Your task to perform on an android device: Go to network settings Image 0: 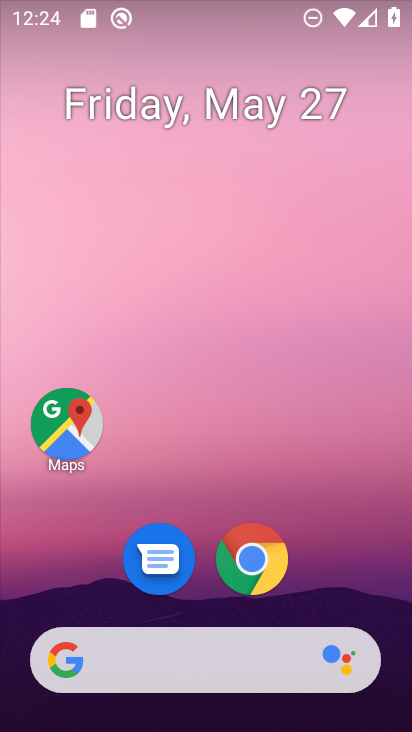
Step 0: drag from (308, 580) to (343, 178)
Your task to perform on an android device: Go to network settings Image 1: 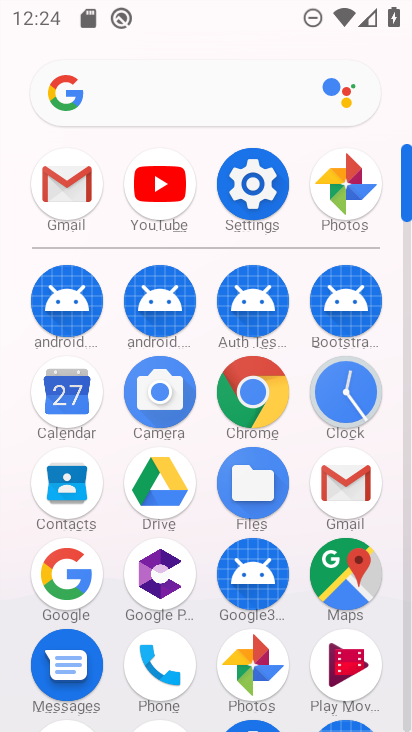
Step 1: click (247, 170)
Your task to perform on an android device: Go to network settings Image 2: 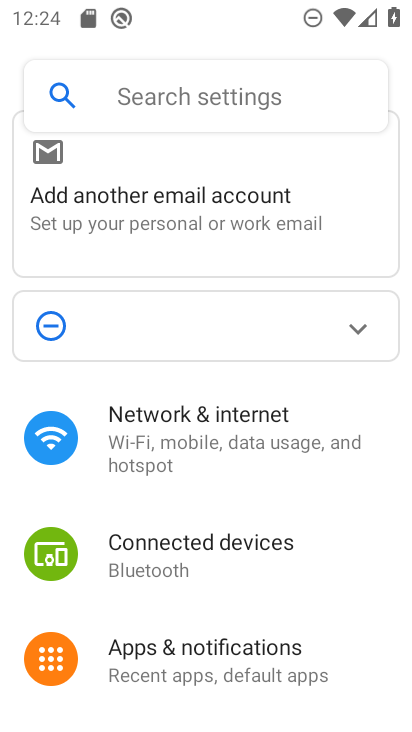
Step 2: click (178, 450)
Your task to perform on an android device: Go to network settings Image 3: 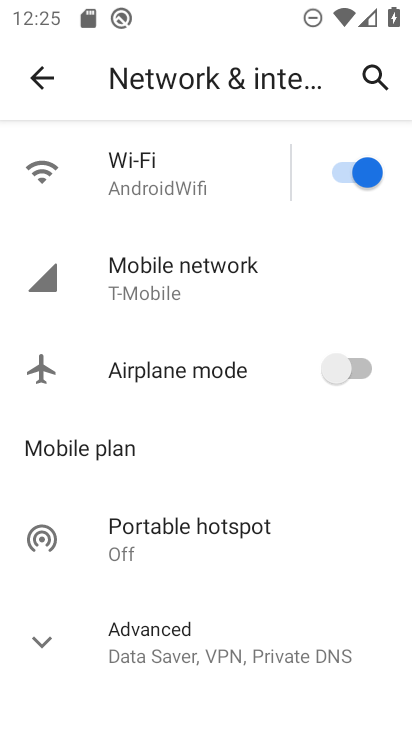
Step 3: click (177, 279)
Your task to perform on an android device: Go to network settings Image 4: 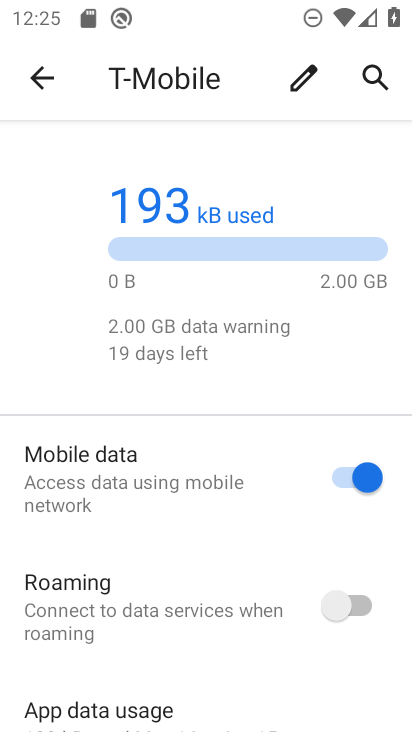
Step 4: task complete